Your task to perform on an android device: make emails show in primary in the gmail app Image 0: 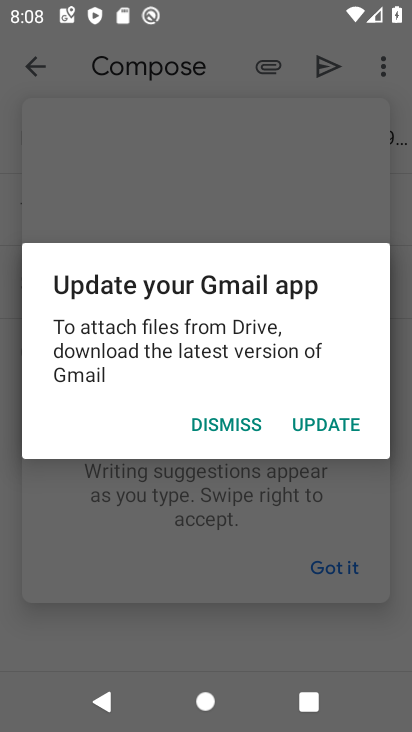
Step 0: press home button
Your task to perform on an android device: make emails show in primary in the gmail app Image 1: 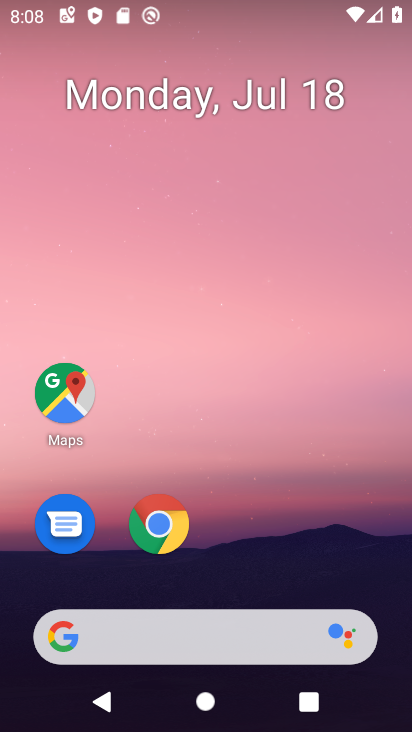
Step 1: drag from (259, 515) to (228, 11)
Your task to perform on an android device: make emails show in primary in the gmail app Image 2: 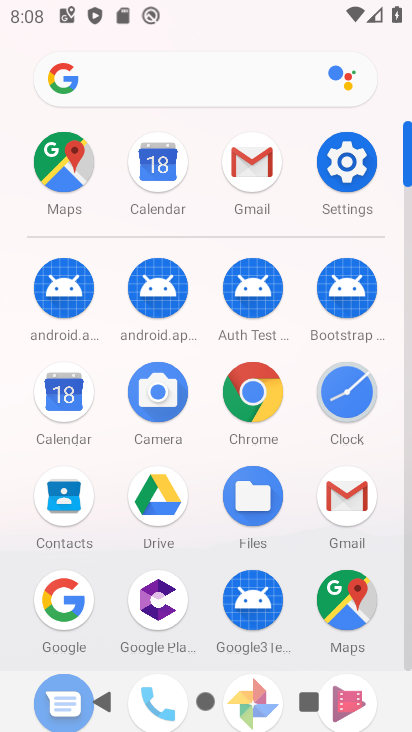
Step 2: click (262, 171)
Your task to perform on an android device: make emails show in primary in the gmail app Image 3: 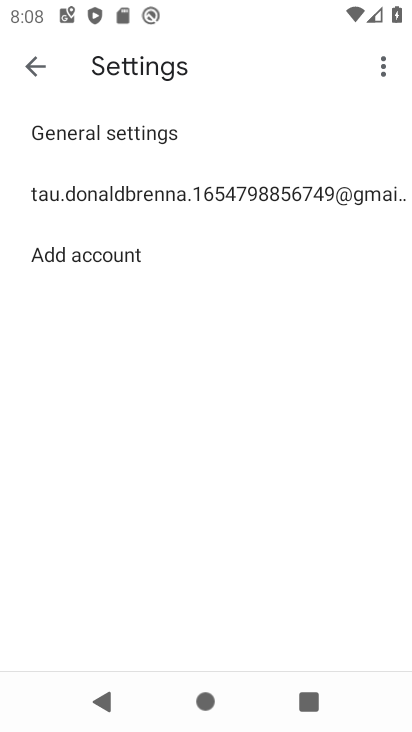
Step 3: click (263, 193)
Your task to perform on an android device: make emails show in primary in the gmail app Image 4: 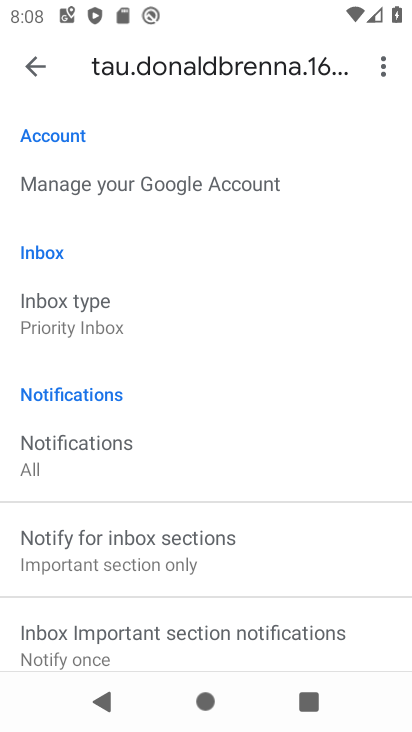
Step 4: click (109, 323)
Your task to perform on an android device: make emails show in primary in the gmail app Image 5: 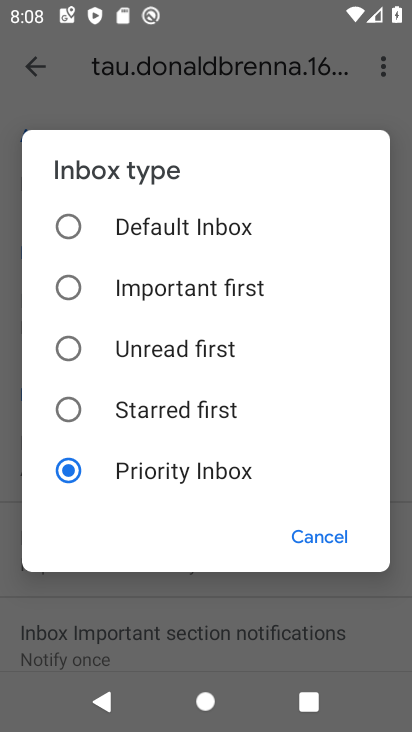
Step 5: click (71, 220)
Your task to perform on an android device: make emails show in primary in the gmail app Image 6: 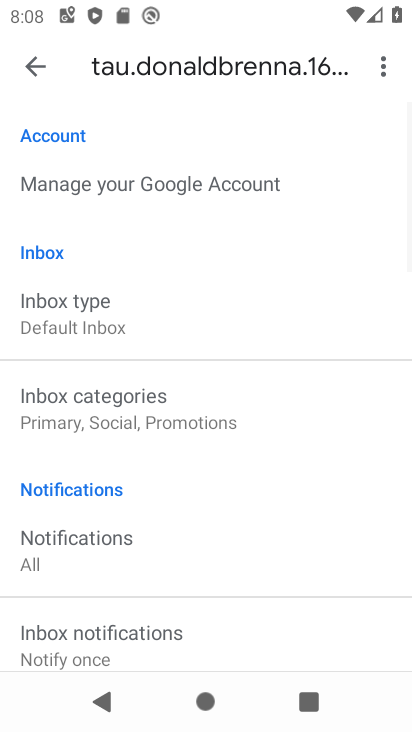
Step 6: click (104, 411)
Your task to perform on an android device: make emails show in primary in the gmail app Image 7: 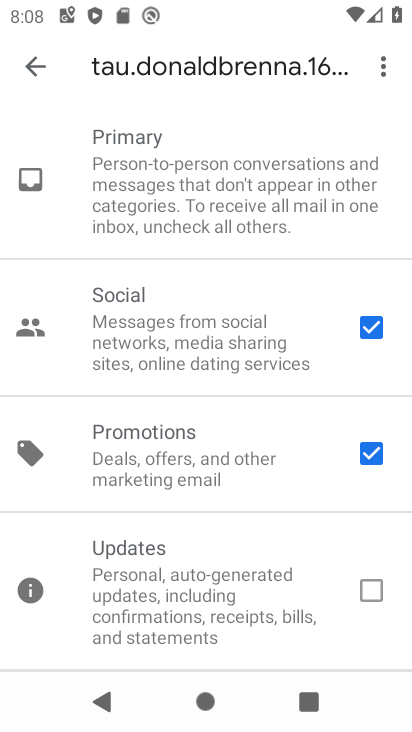
Step 7: click (370, 321)
Your task to perform on an android device: make emails show in primary in the gmail app Image 8: 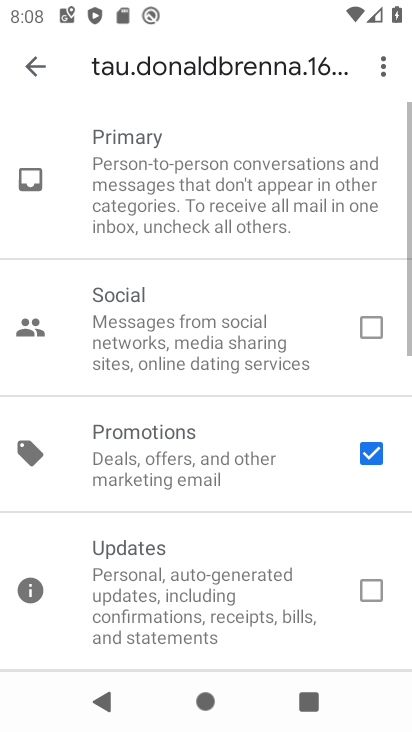
Step 8: click (373, 460)
Your task to perform on an android device: make emails show in primary in the gmail app Image 9: 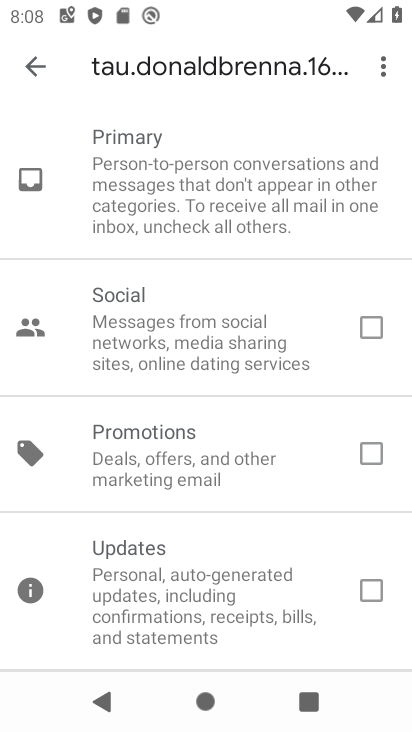
Step 9: click (41, 72)
Your task to perform on an android device: make emails show in primary in the gmail app Image 10: 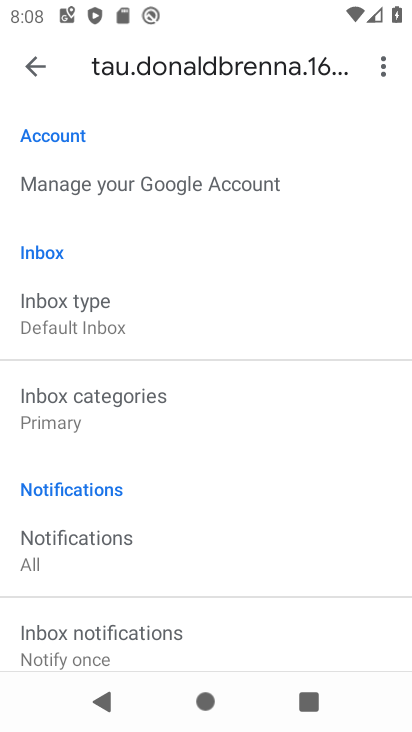
Step 10: task complete